Your task to perform on an android device: Open the stopwatch Image 0: 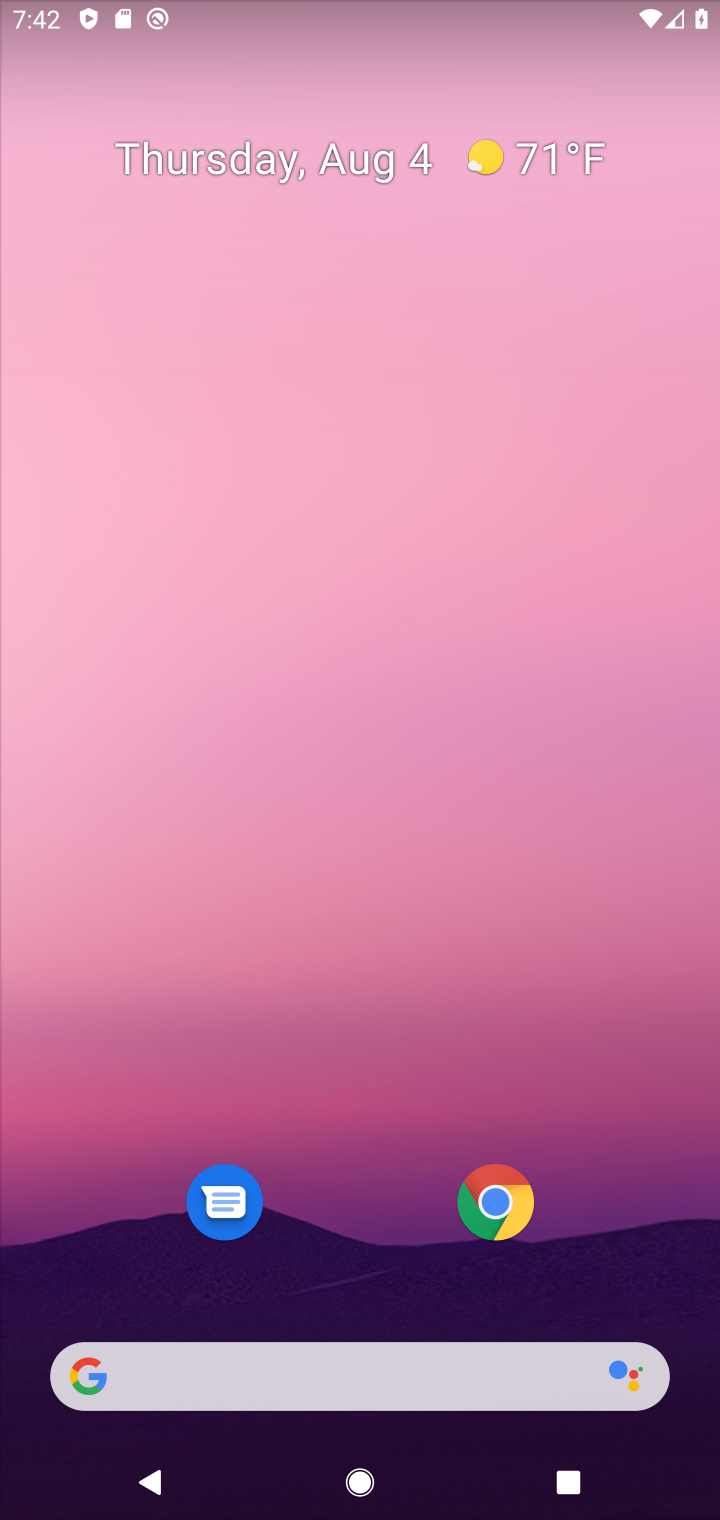
Step 0: drag from (343, 1212) to (394, 365)
Your task to perform on an android device: Open the stopwatch Image 1: 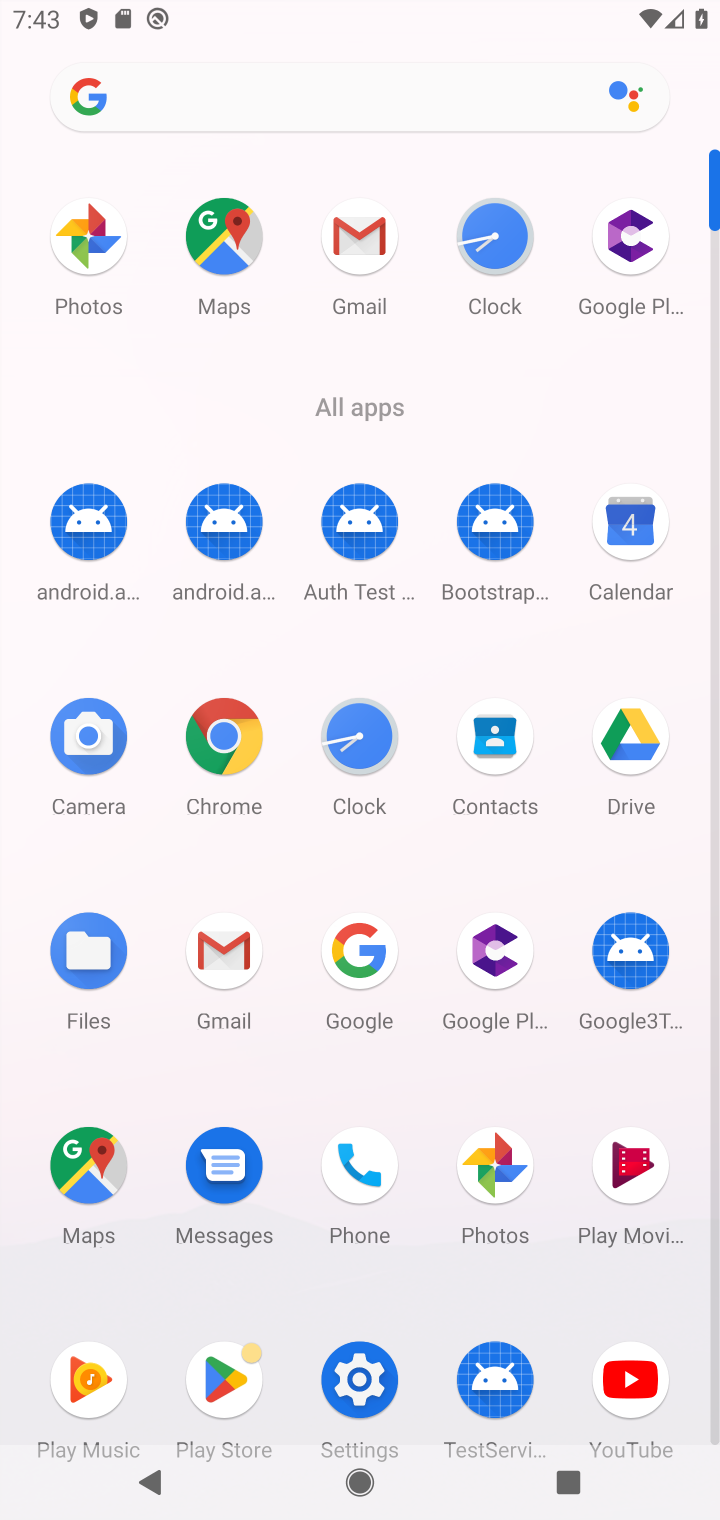
Step 1: click (377, 734)
Your task to perform on an android device: Open the stopwatch Image 2: 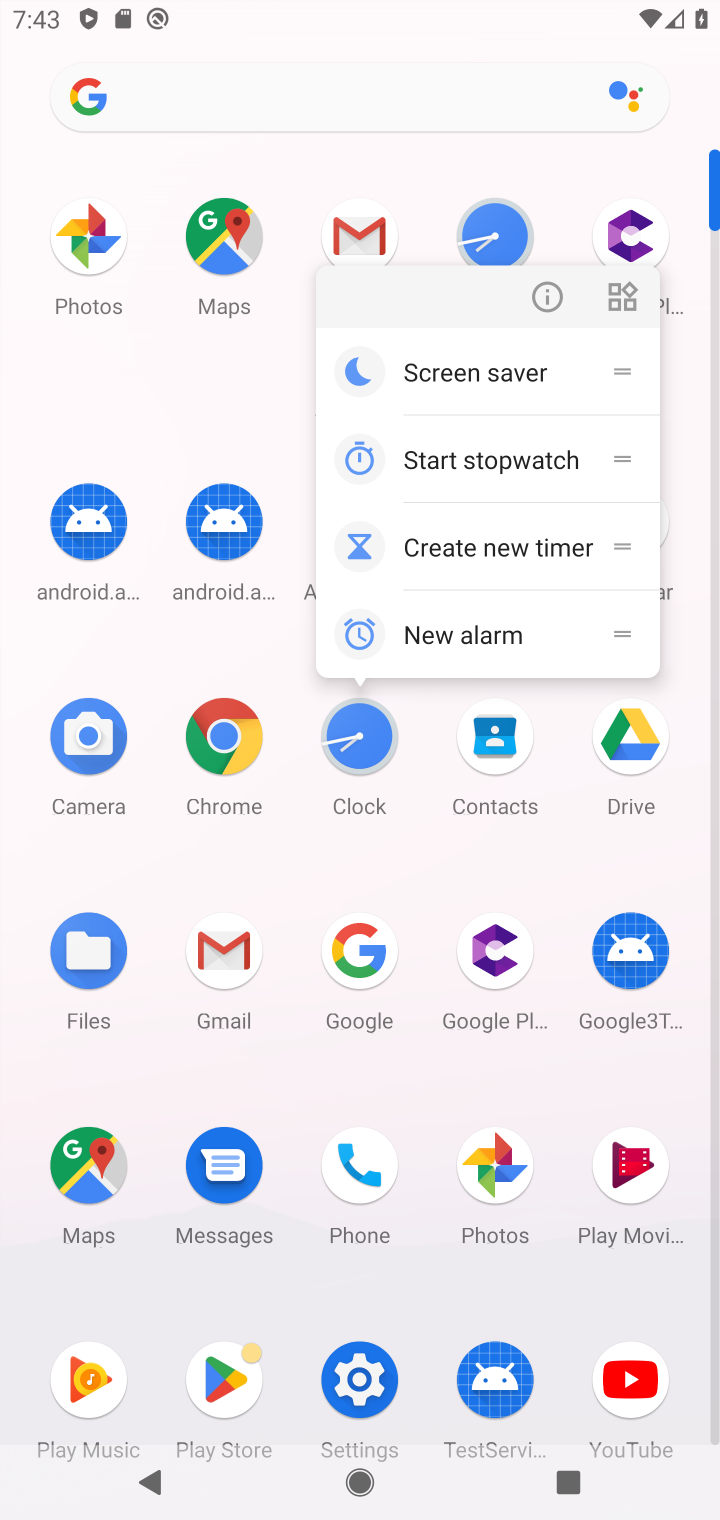
Step 2: click (547, 304)
Your task to perform on an android device: Open the stopwatch Image 3: 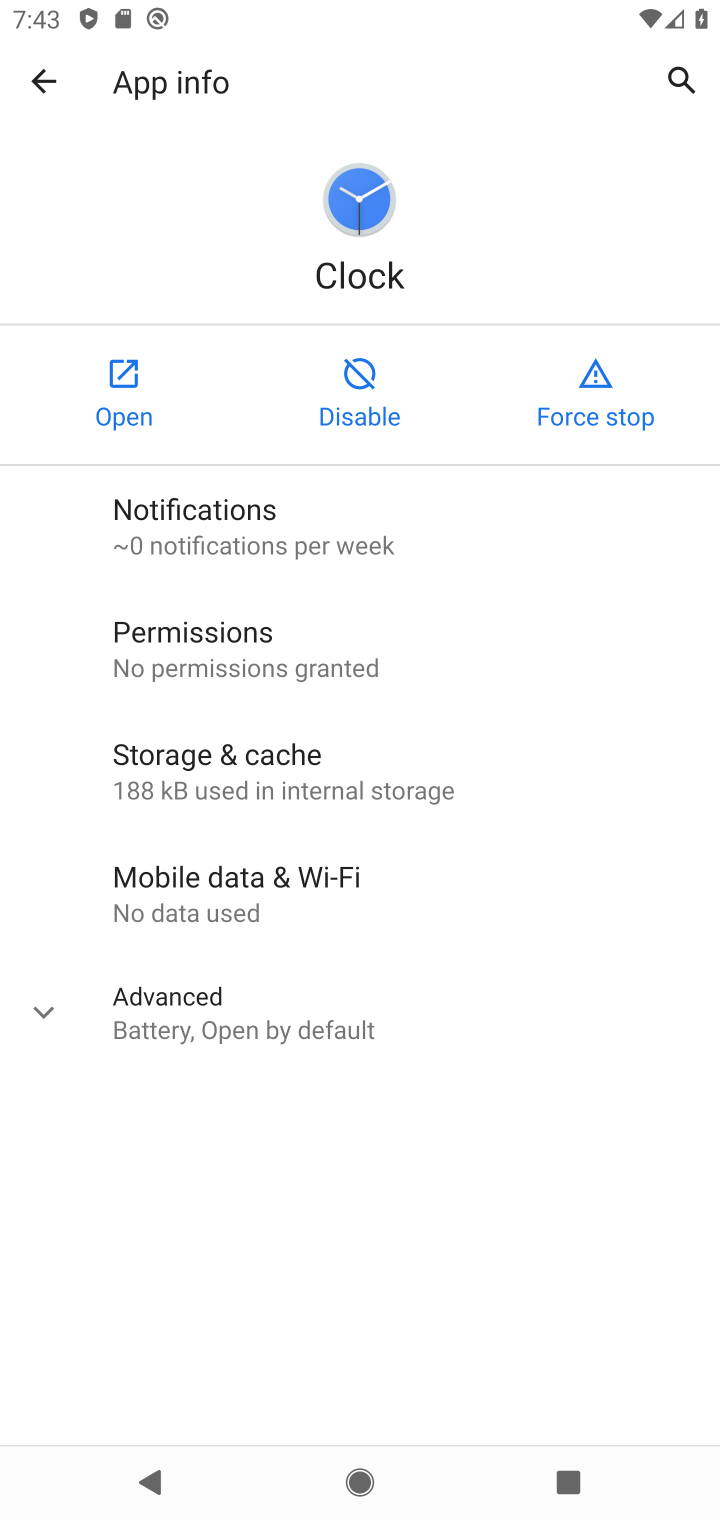
Step 3: click (117, 407)
Your task to perform on an android device: Open the stopwatch Image 4: 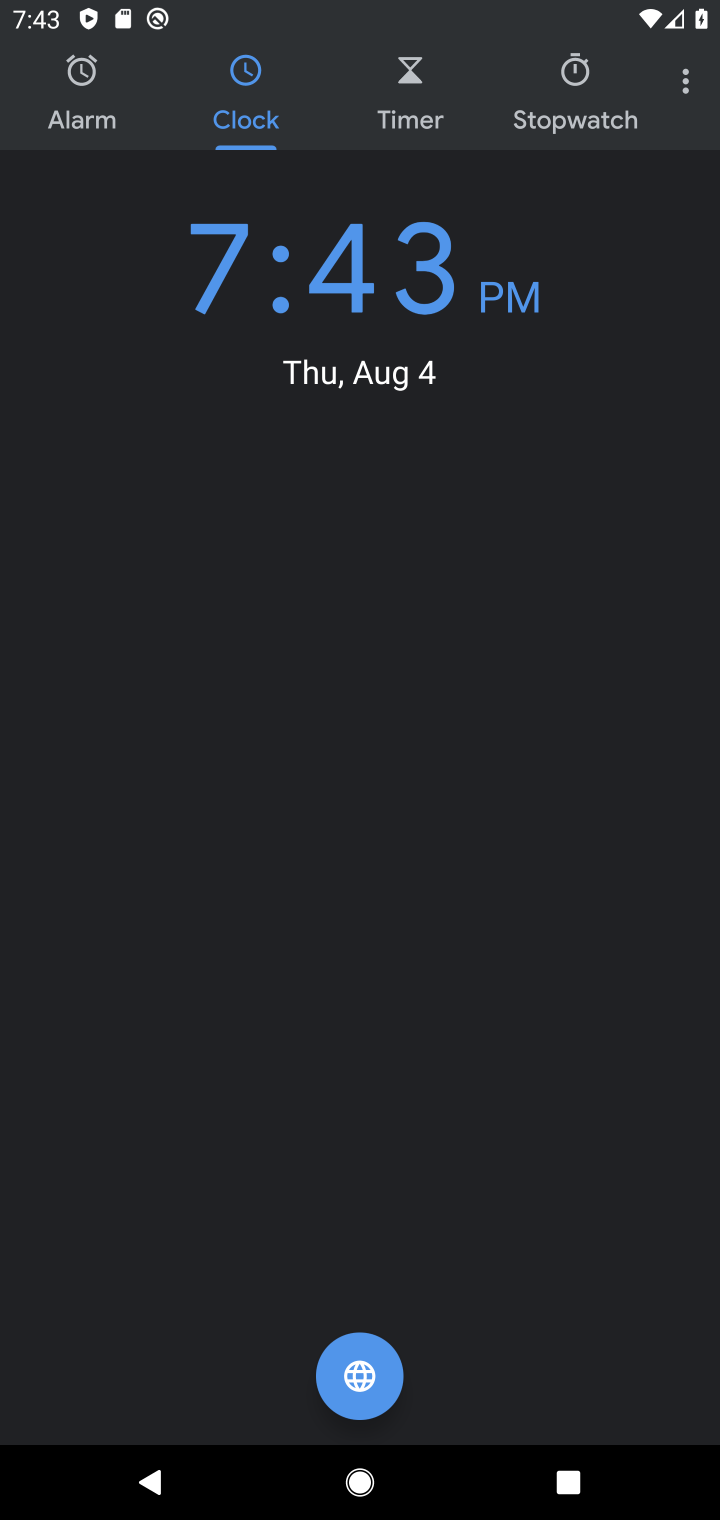
Step 4: click (564, 67)
Your task to perform on an android device: Open the stopwatch Image 5: 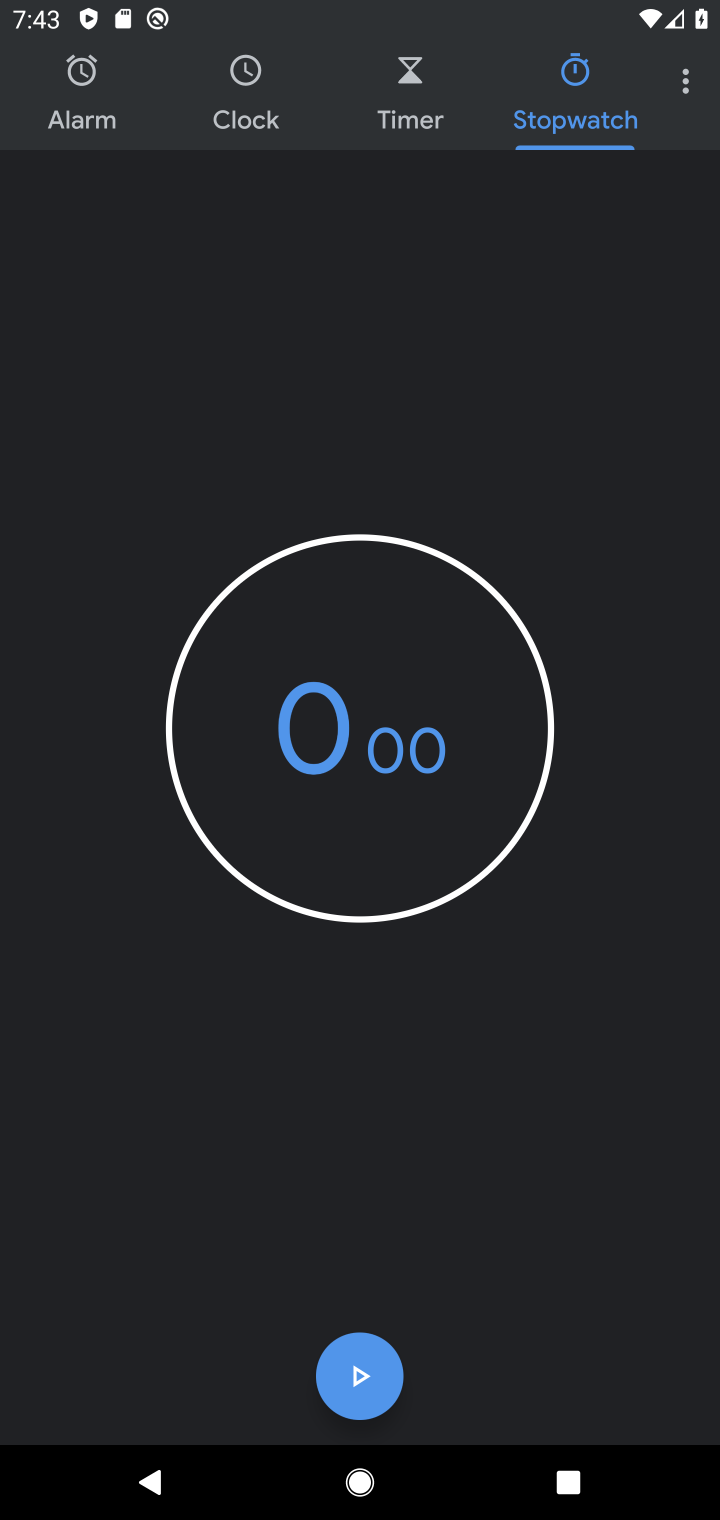
Step 5: drag from (494, 937) to (498, 598)
Your task to perform on an android device: Open the stopwatch Image 6: 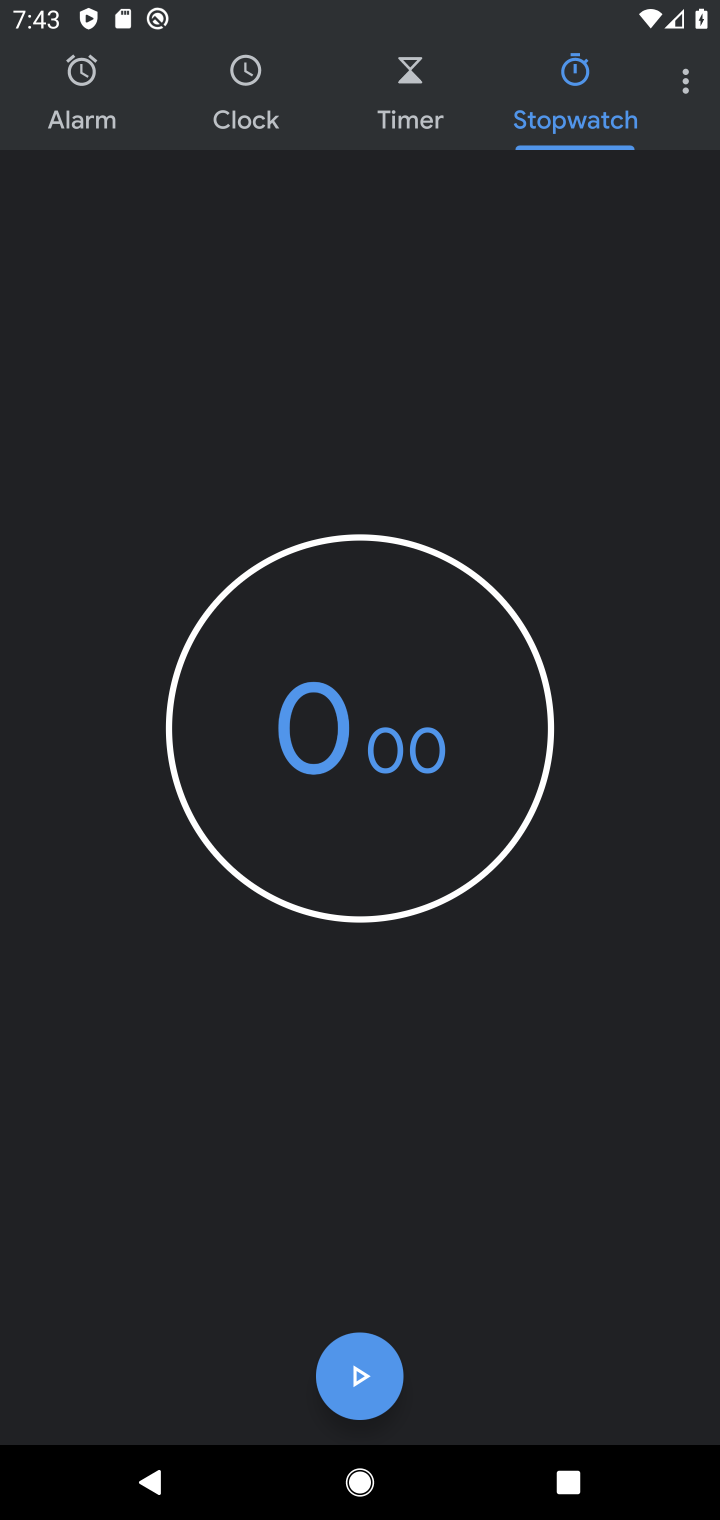
Step 6: click (373, 1367)
Your task to perform on an android device: Open the stopwatch Image 7: 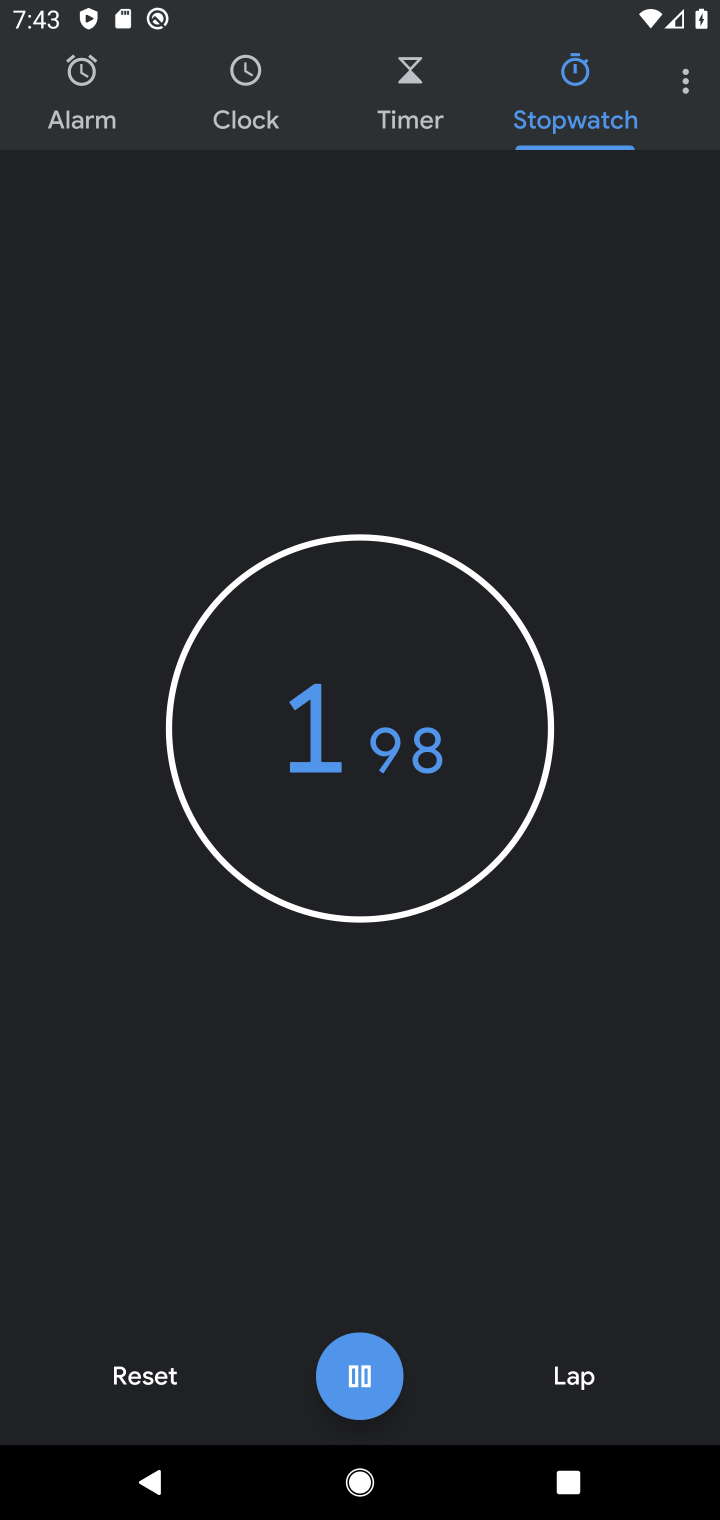
Step 7: task complete